Your task to perform on an android device: Open eBay Image 0: 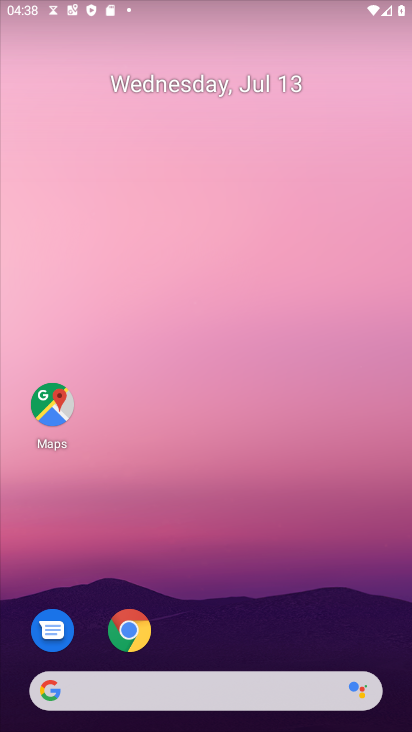
Step 0: click (290, 134)
Your task to perform on an android device: Open eBay Image 1: 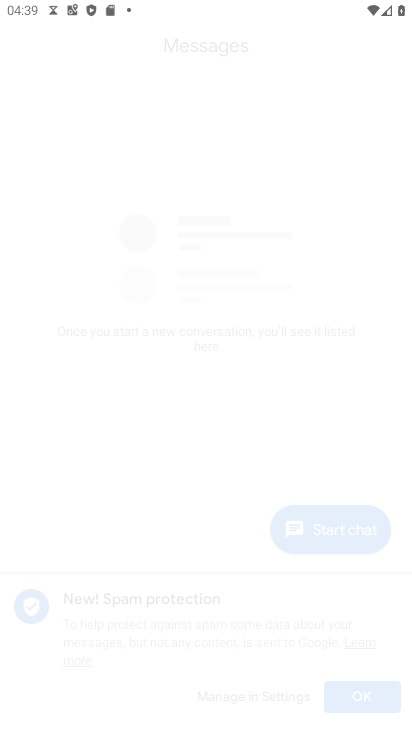
Step 1: drag from (327, 692) to (292, 155)
Your task to perform on an android device: Open eBay Image 2: 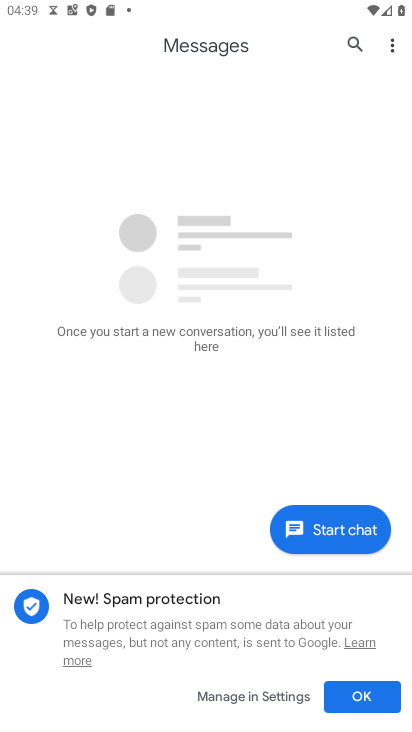
Step 2: press home button
Your task to perform on an android device: Open eBay Image 3: 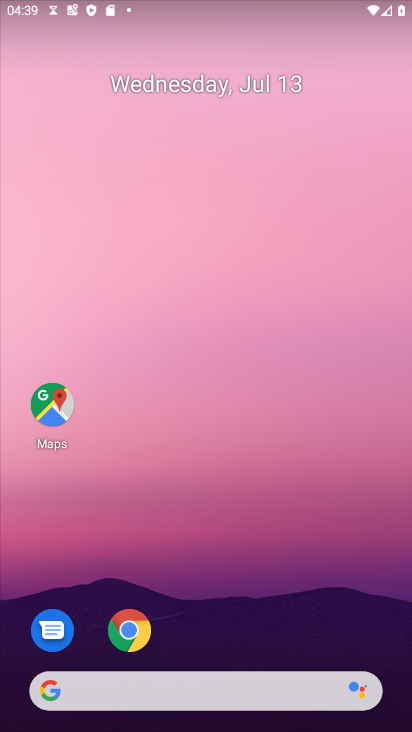
Step 3: drag from (300, 651) to (311, 83)
Your task to perform on an android device: Open eBay Image 4: 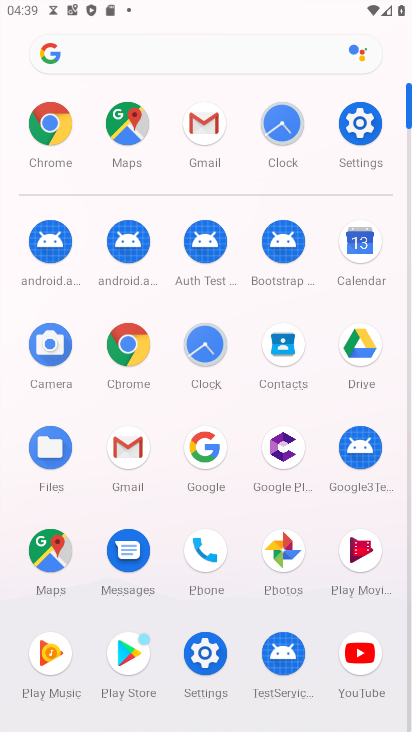
Step 4: click (119, 345)
Your task to perform on an android device: Open eBay Image 5: 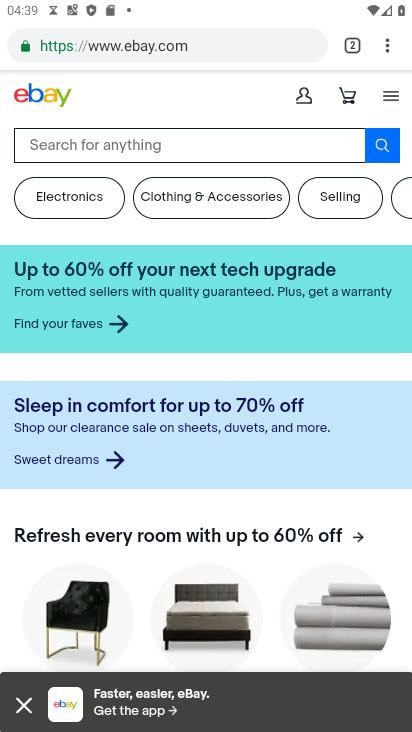
Step 5: task complete